Your task to perform on an android device: Go to Yahoo.com Image 0: 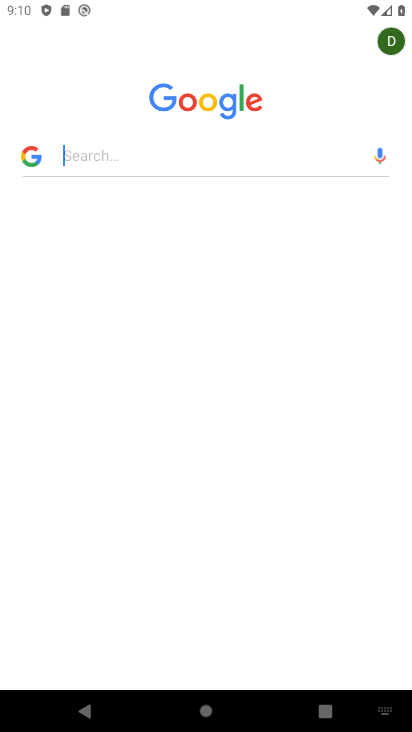
Step 0: press home button
Your task to perform on an android device: Go to Yahoo.com Image 1: 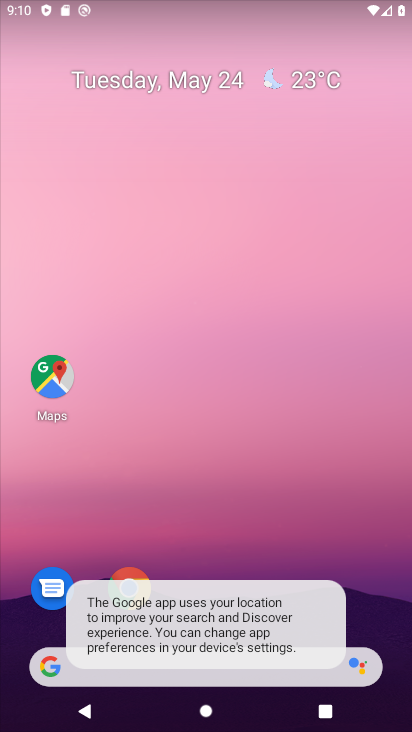
Step 1: click (131, 574)
Your task to perform on an android device: Go to Yahoo.com Image 2: 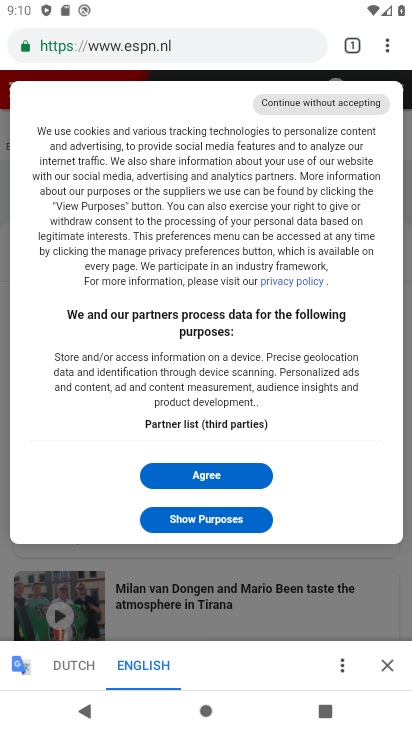
Step 2: click (352, 46)
Your task to perform on an android device: Go to Yahoo.com Image 3: 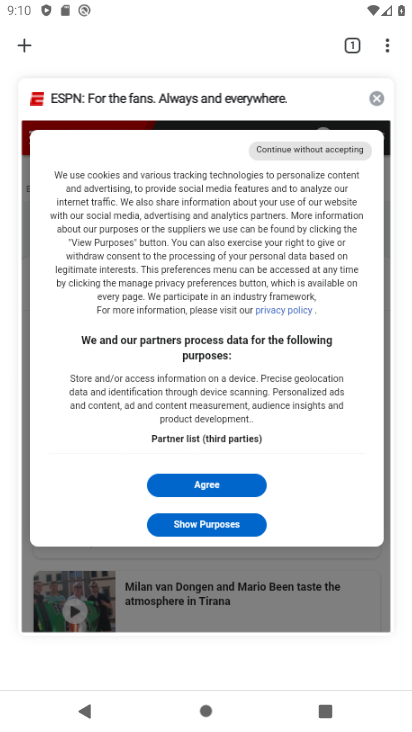
Step 3: click (1, 50)
Your task to perform on an android device: Go to Yahoo.com Image 4: 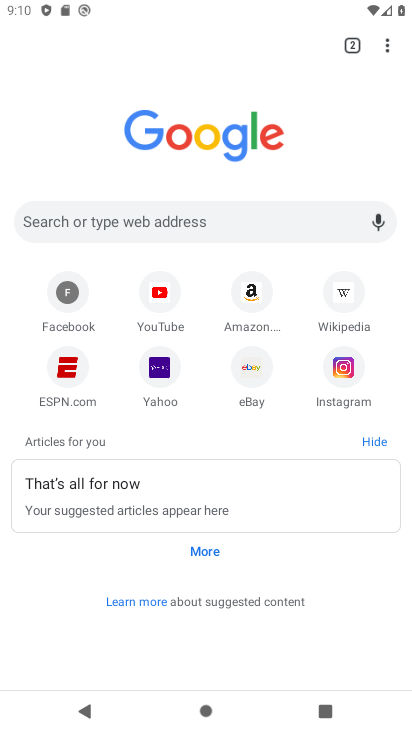
Step 4: click (161, 362)
Your task to perform on an android device: Go to Yahoo.com Image 5: 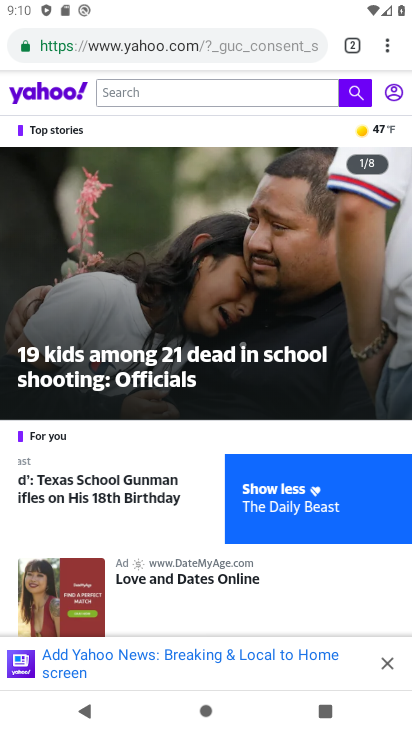
Step 5: task complete